Your task to perform on an android device: Turn on the flashlight Image 0: 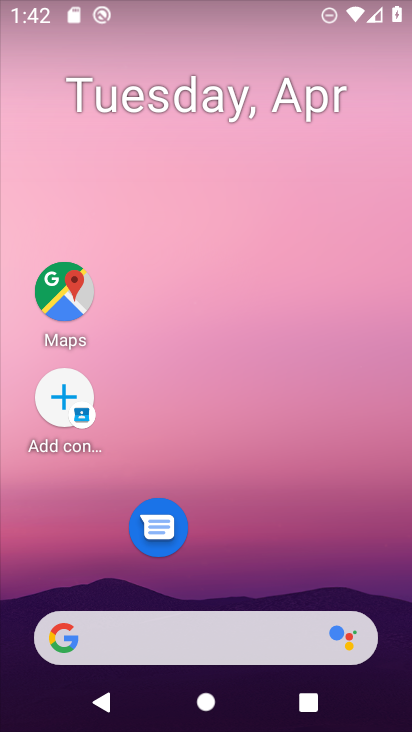
Step 0: drag from (252, 560) to (290, 176)
Your task to perform on an android device: Turn on the flashlight Image 1: 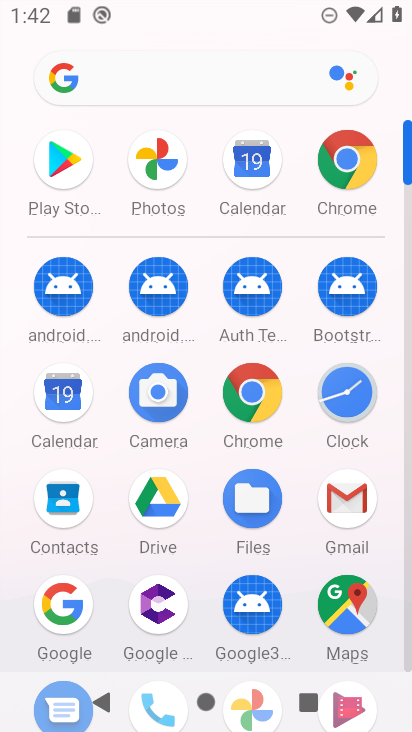
Step 1: drag from (209, 453) to (232, 234)
Your task to perform on an android device: Turn on the flashlight Image 2: 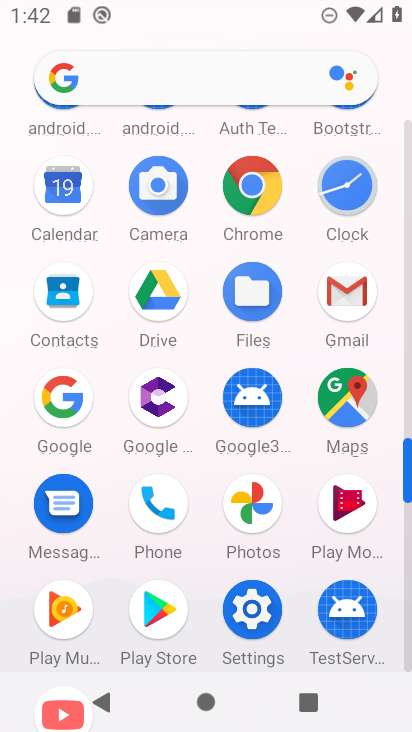
Step 2: click (254, 612)
Your task to perform on an android device: Turn on the flashlight Image 3: 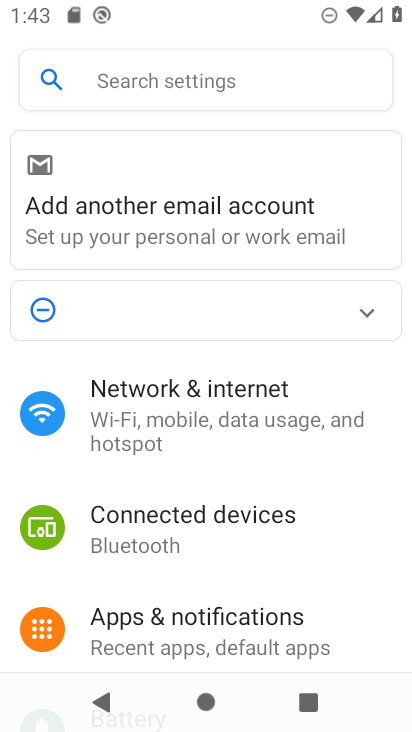
Step 3: drag from (182, 564) to (218, 446)
Your task to perform on an android device: Turn on the flashlight Image 4: 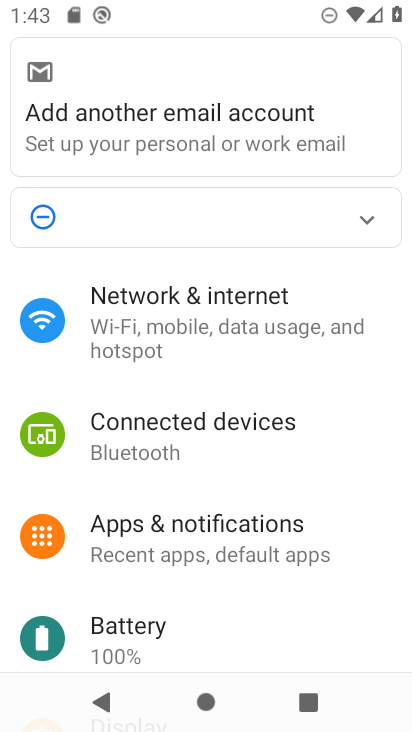
Step 4: drag from (175, 497) to (223, 409)
Your task to perform on an android device: Turn on the flashlight Image 5: 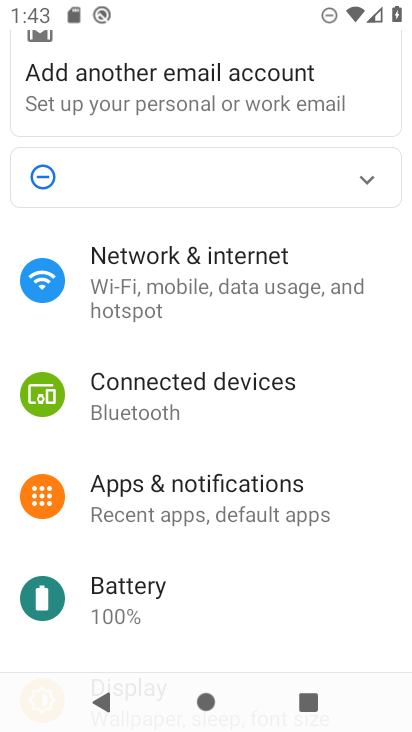
Step 5: drag from (238, 501) to (259, 439)
Your task to perform on an android device: Turn on the flashlight Image 6: 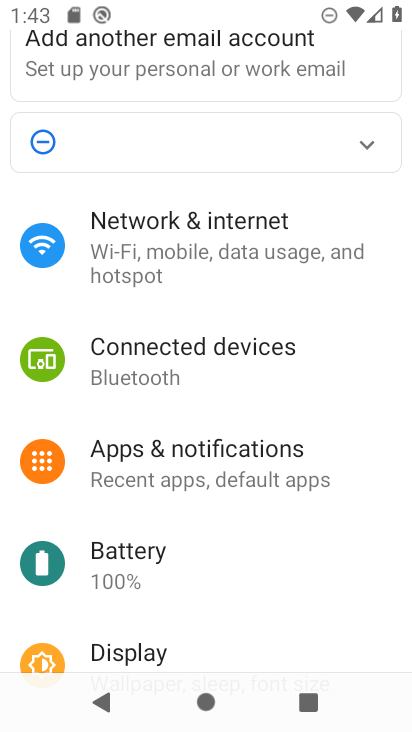
Step 6: drag from (224, 544) to (246, 455)
Your task to perform on an android device: Turn on the flashlight Image 7: 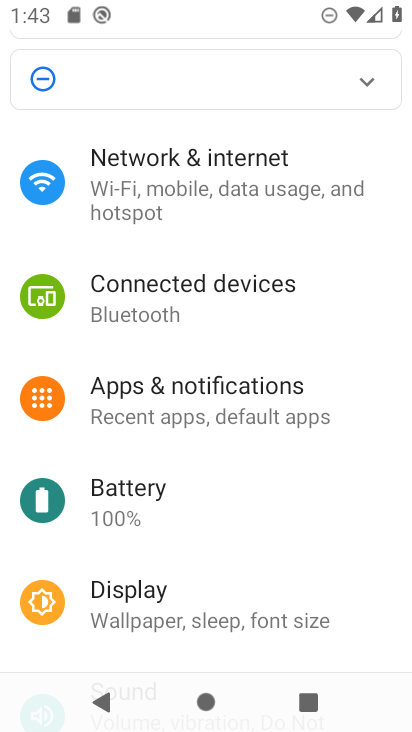
Step 7: drag from (206, 552) to (241, 463)
Your task to perform on an android device: Turn on the flashlight Image 8: 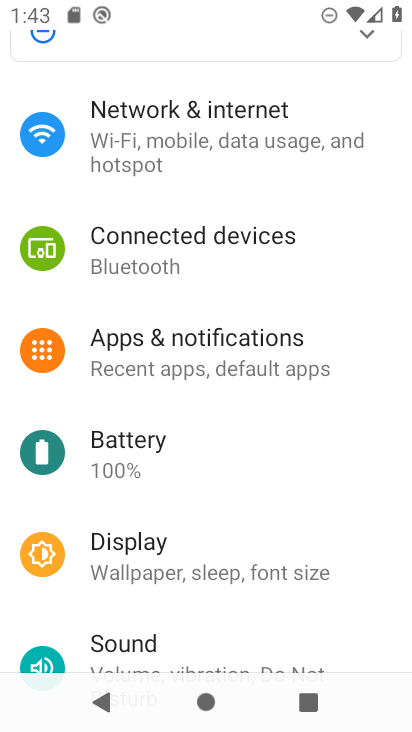
Step 8: drag from (230, 588) to (255, 517)
Your task to perform on an android device: Turn on the flashlight Image 9: 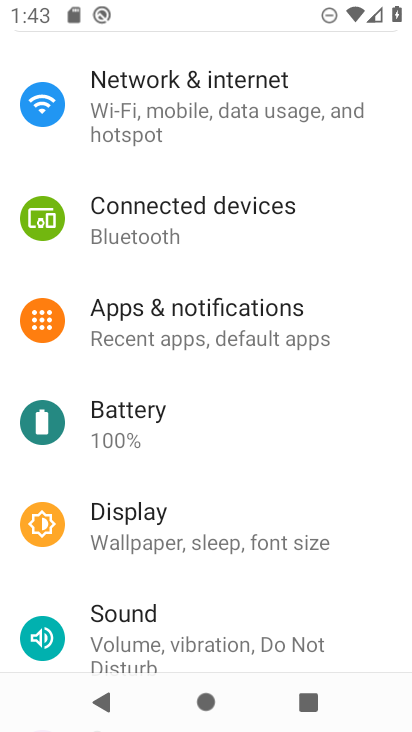
Step 9: drag from (195, 597) to (248, 482)
Your task to perform on an android device: Turn on the flashlight Image 10: 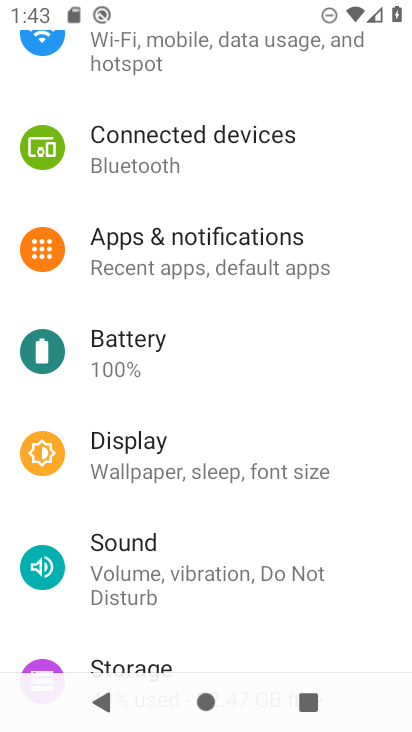
Step 10: drag from (221, 530) to (235, 473)
Your task to perform on an android device: Turn on the flashlight Image 11: 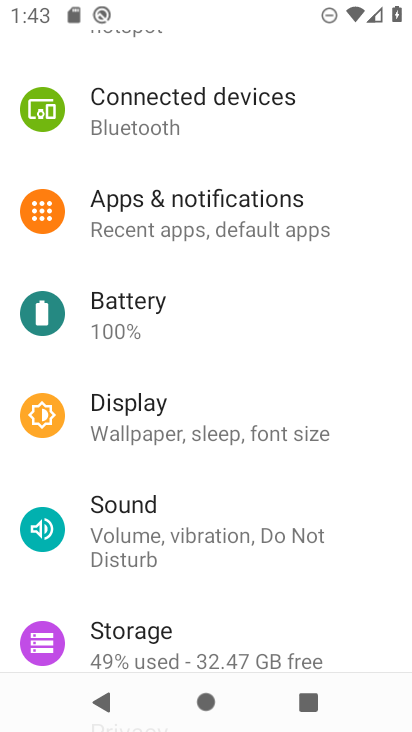
Step 11: click (231, 448)
Your task to perform on an android device: Turn on the flashlight Image 12: 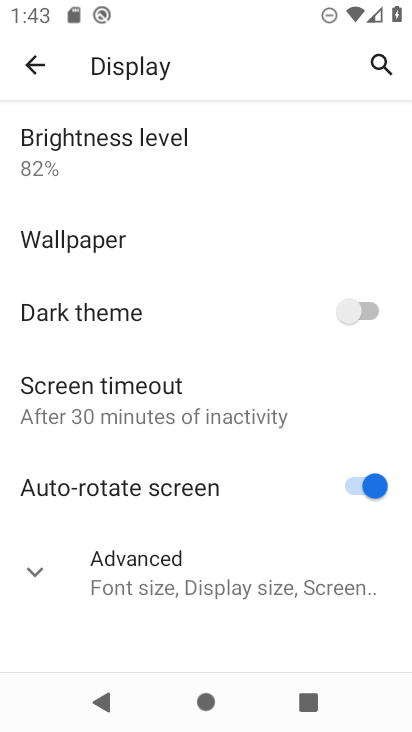
Step 12: click (198, 574)
Your task to perform on an android device: Turn on the flashlight Image 13: 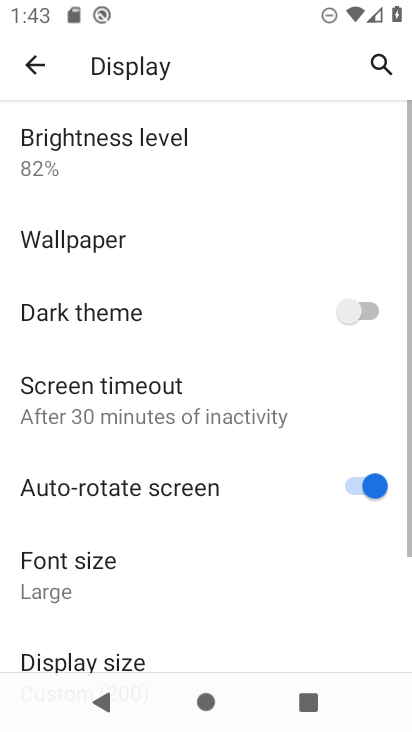
Step 13: task complete